Your task to perform on an android device: turn on sleep mode Image 0: 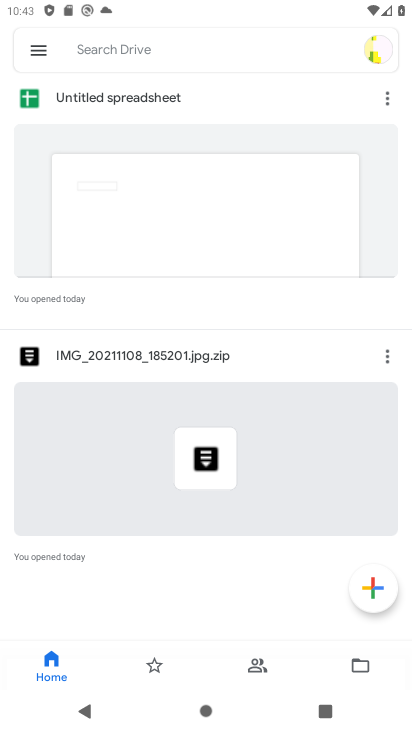
Step 0: press home button
Your task to perform on an android device: turn on sleep mode Image 1: 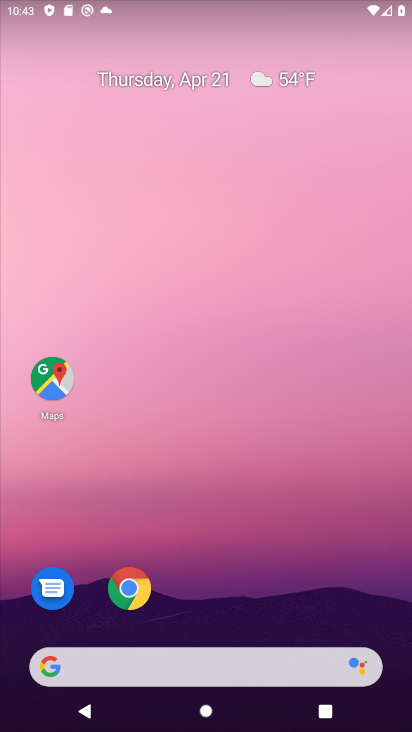
Step 1: drag from (358, 3) to (326, 567)
Your task to perform on an android device: turn on sleep mode Image 2: 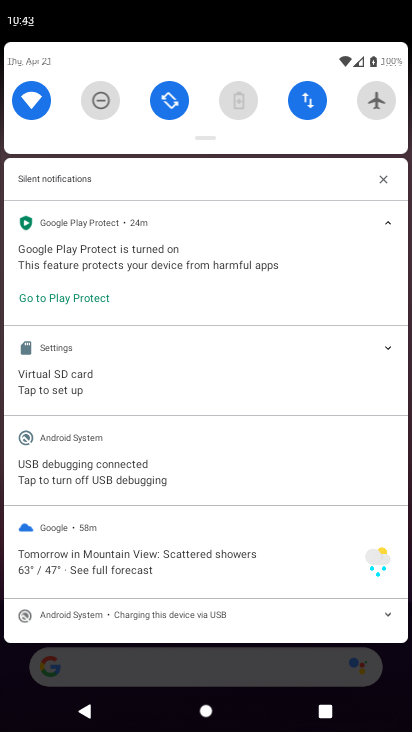
Step 2: drag from (205, 119) to (264, 633)
Your task to perform on an android device: turn on sleep mode Image 3: 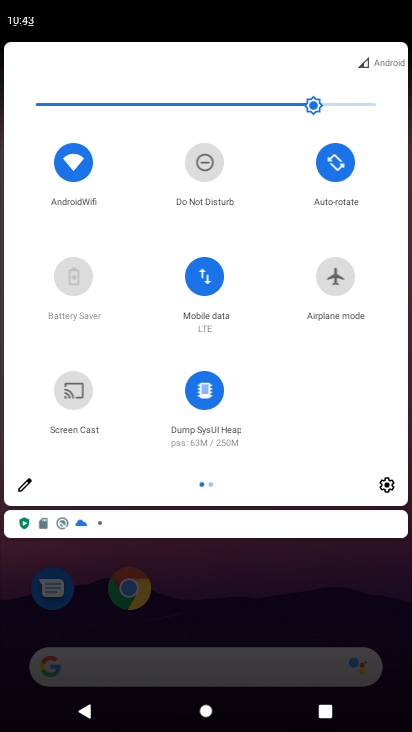
Step 3: click (24, 476)
Your task to perform on an android device: turn on sleep mode Image 4: 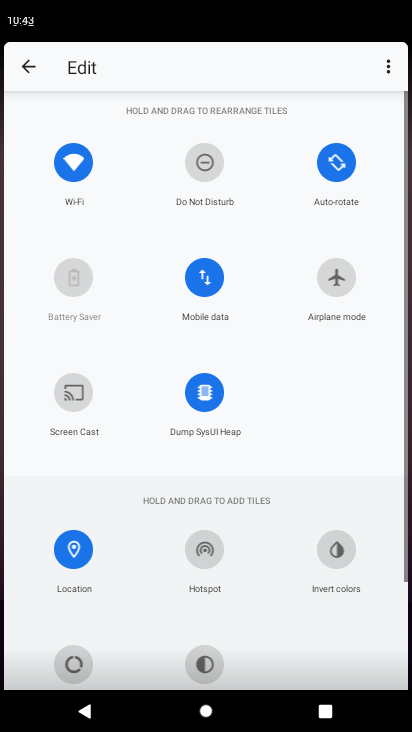
Step 4: task complete